Your task to perform on an android device: add a contact in the contacts app Image 0: 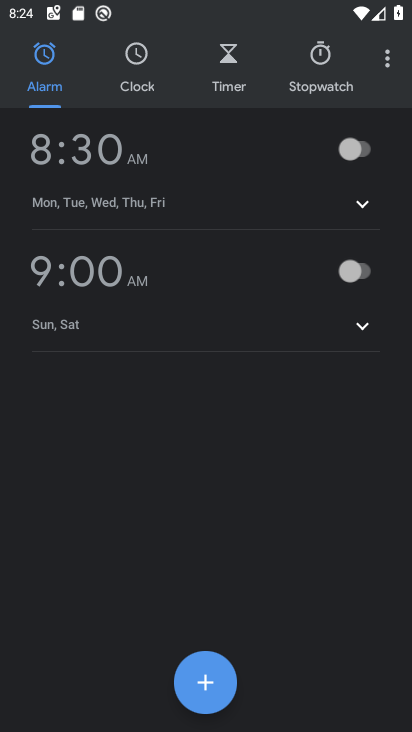
Step 0: press home button
Your task to perform on an android device: add a contact in the contacts app Image 1: 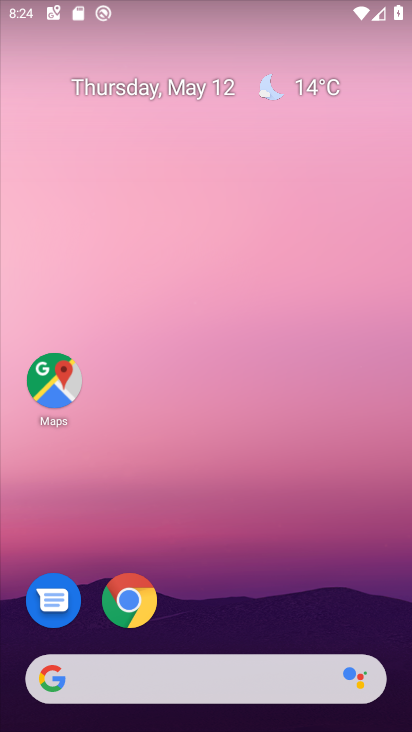
Step 1: drag from (278, 566) to (45, 91)
Your task to perform on an android device: add a contact in the contacts app Image 2: 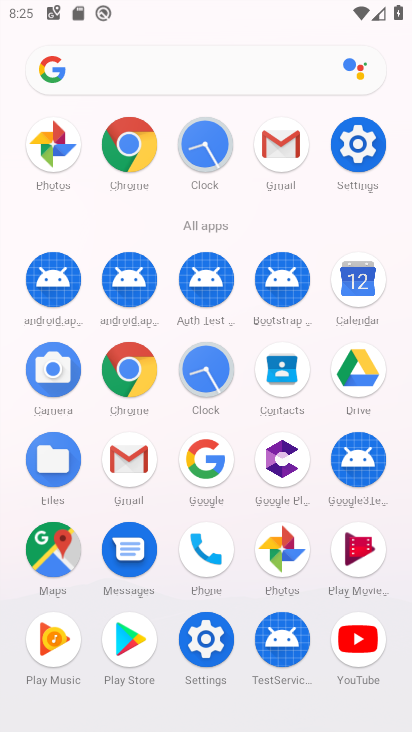
Step 2: click (290, 366)
Your task to perform on an android device: add a contact in the contacts app Image 3: 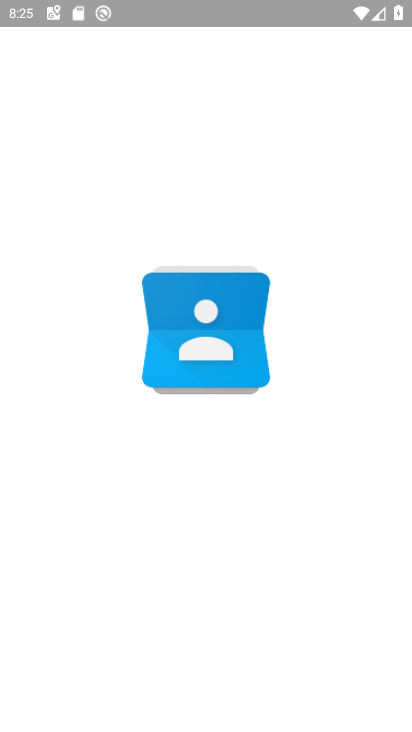
Step 3: click (290, 366)
Your task to perform on an android device: add a contact in the contacts app Image 4: 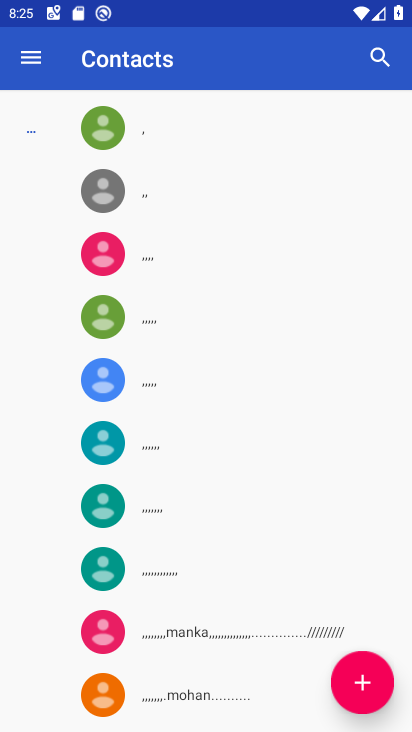
Step 4: click (354, 684)
Your task to perform on an android device: add a contact in the contacts app Image 5: 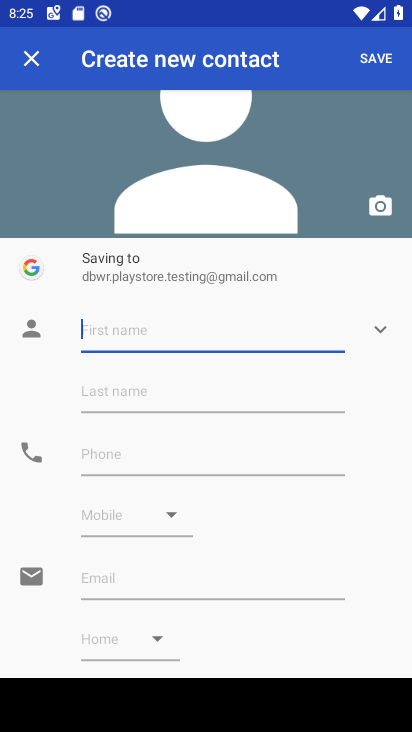
Step 5: type "gjhdsghf"
Your task to perform on an android device: add a contact in the contacts app Image 6: 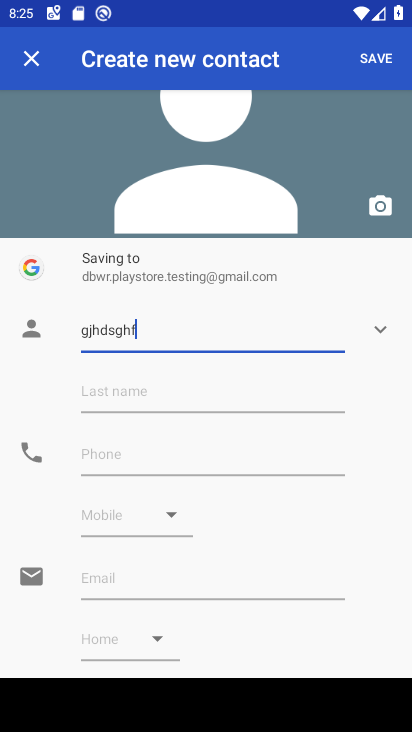
Step 6: click (98, 452)
Your task to perform on an android device: add a contact in the contacts app Image 7: 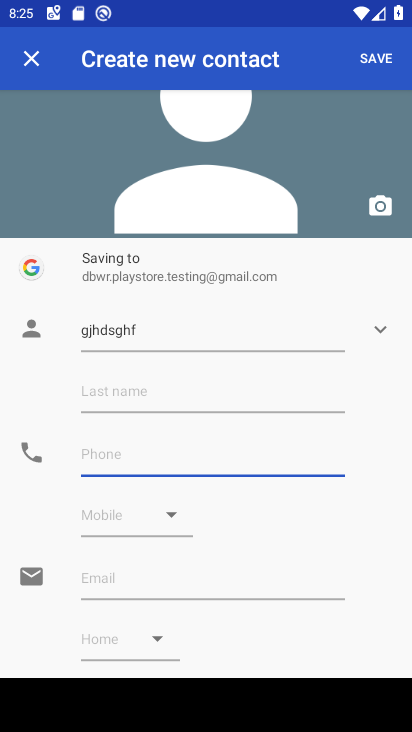
Step 7: click (98, 452)
Your task to perform on an android device: add a contact in the contacts app Image 8: 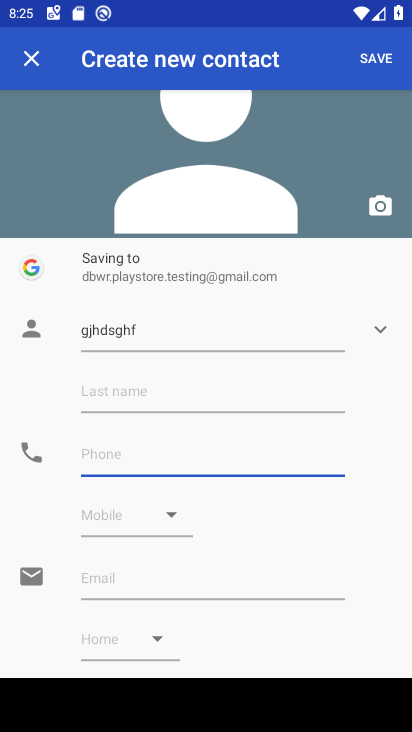
Step 8: type "76768376822332987"
Your task to perform on an android device: add a contact in the contacts app Image 9: 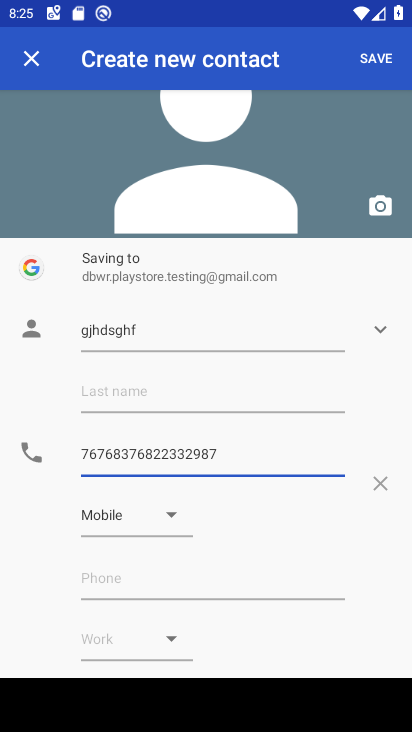
Step 9: click (376, 51)
Your task to perform on an android device: add a contact in the contacts app Image 10: 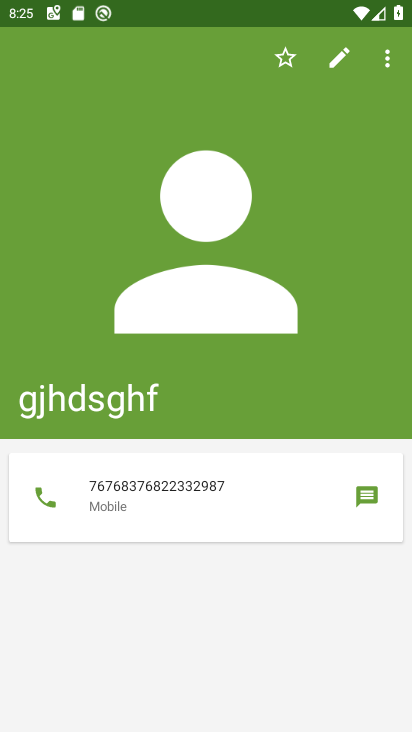
Step 10: task complete